Your task to perform on an android device: change the upload size in google photos Image 0: 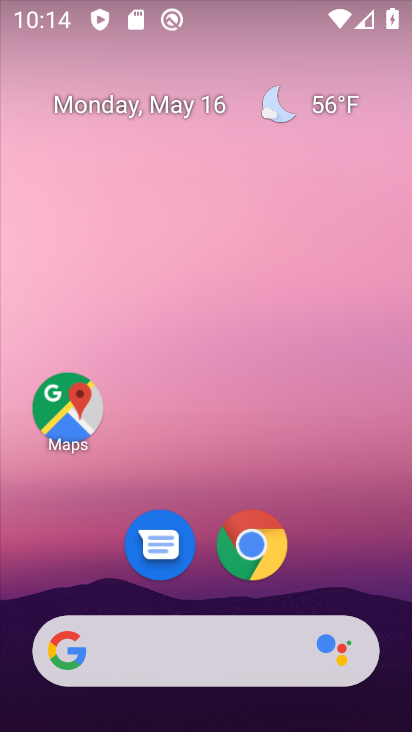
Step 0: drag from (205, 615) to (195, 75)
Your task to perform on an android device: change the upload size in google photos Image 1: 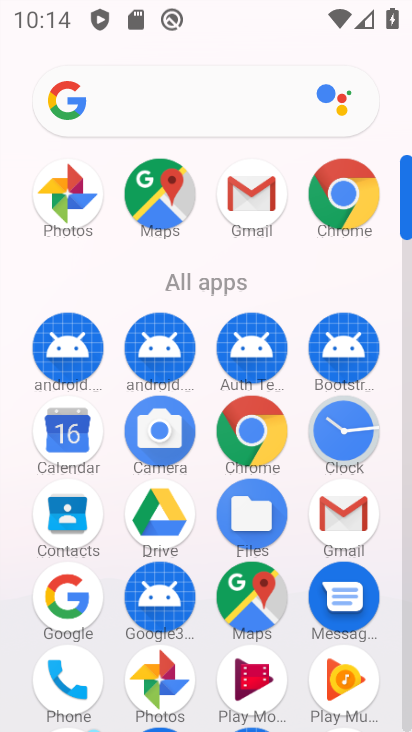
Step 1: click (169, 665)
Your task to perform on an android device: change the upload size in google photos Image 2: 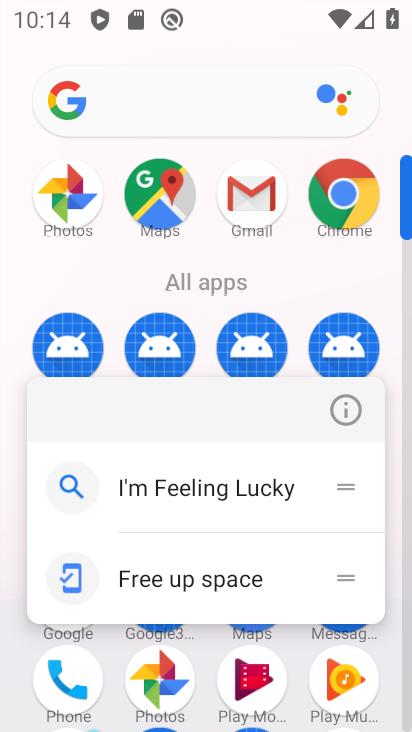
Step 2: click (158, 682)
Your task to perform on an android device: change the upload size in google photos Image 3: 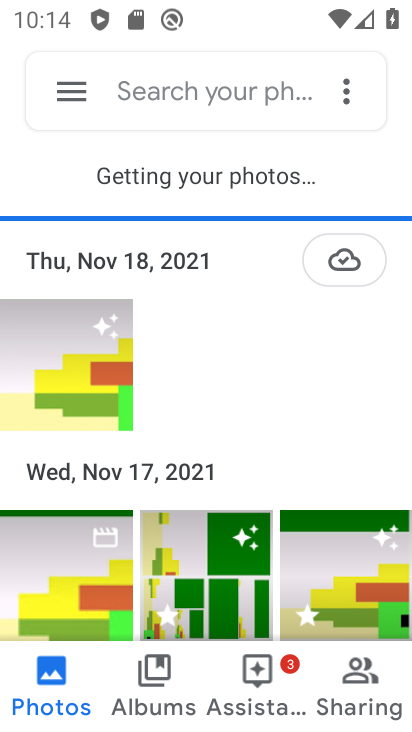
Step 3: click (57, 101)
Your task to perform on an android device: change the upload size in google photos Image 4: 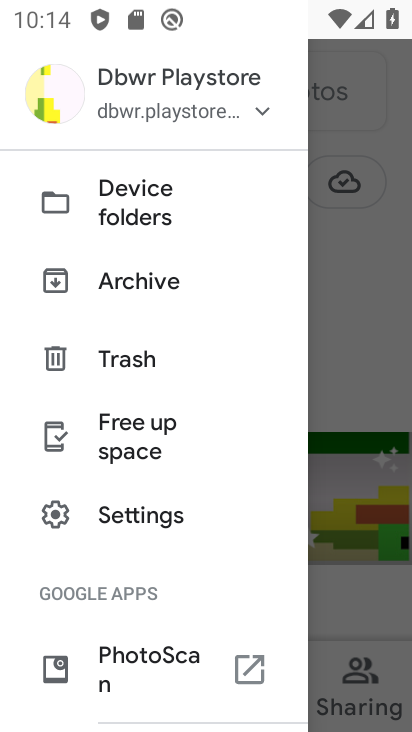
Step 4: drag from (104, 609) to (80, 415)
Your task to perform on an android device: change the upload size in google photos Image 5: 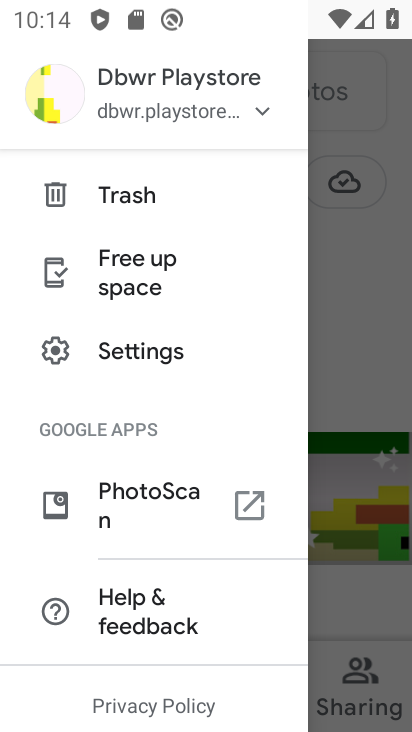
Step 5: click (103, 354)
Your task to perform on an android device: change the upload size in google photos Image 6: 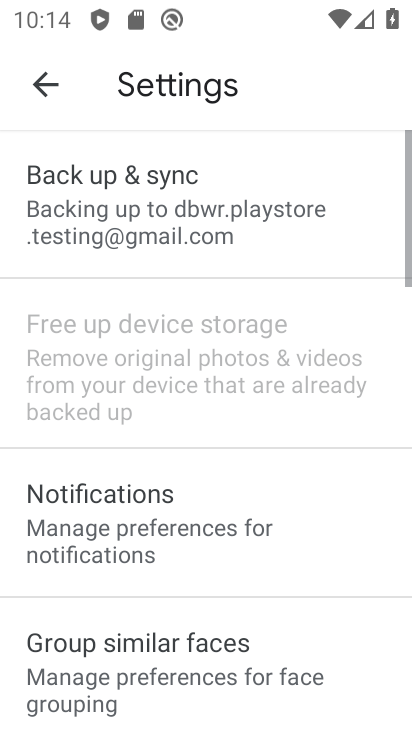
Step 6: click (146, 207)
Your task to perform on an android device: change the upload size in google photos Image 7: 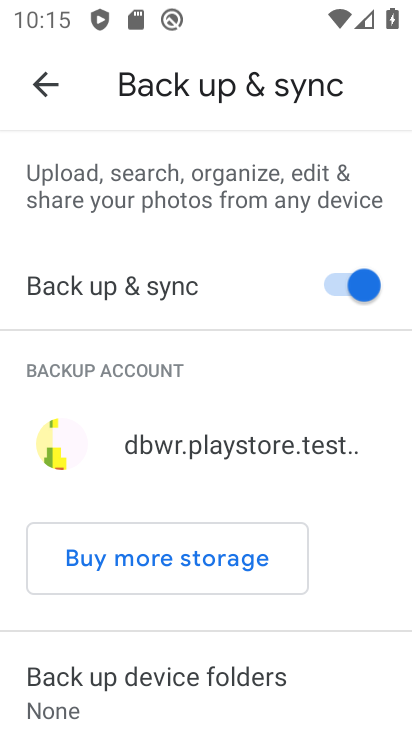
Step 7: drag from (225, 516) to (197, 178)
Your task to perform on an android device: change the upload size in google photos Image 8: 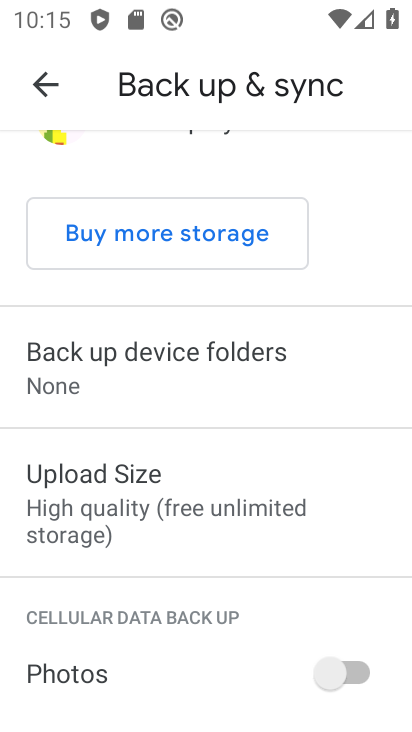
Step 8: click (172, 500)
Your task to perform on an android device: change the upload size in google photos Image 9: 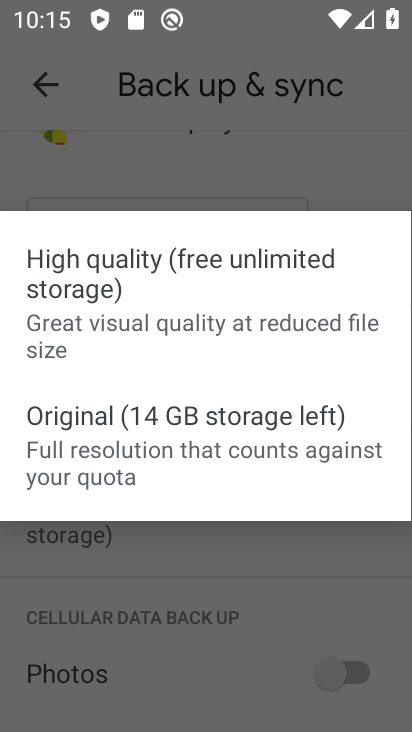
Step 9: click (177, 551)
Your task to perform on an android device: change the upload size in google photos Image 10: 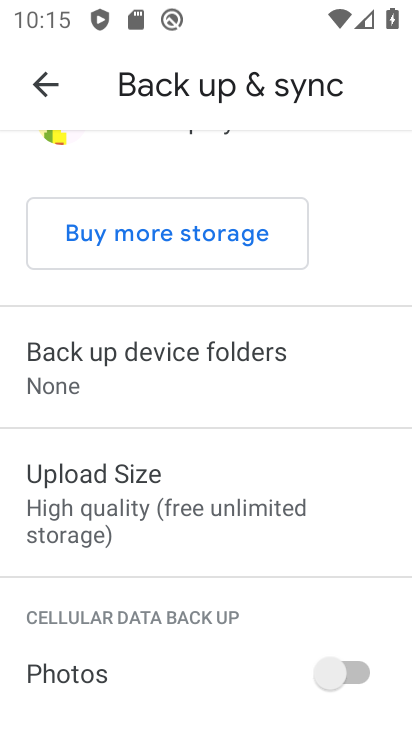
Step 10: click (177, 551)
Your task to perform on an android device: change the upload size in google photos Image 11: 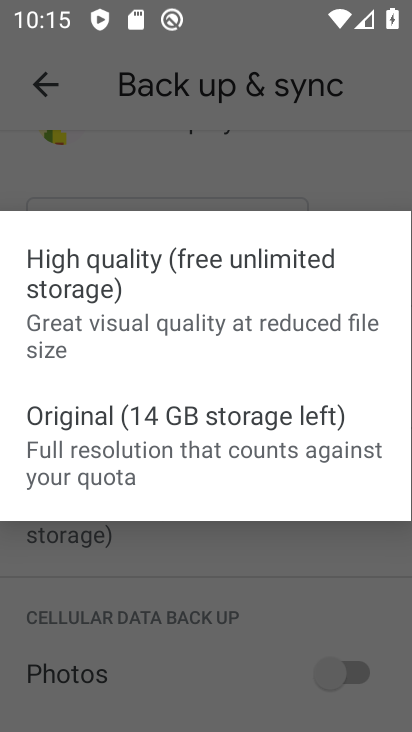
Step 11: click (166, 479)
Your task to perform on an android device: change the upload size in google photos Image 12: 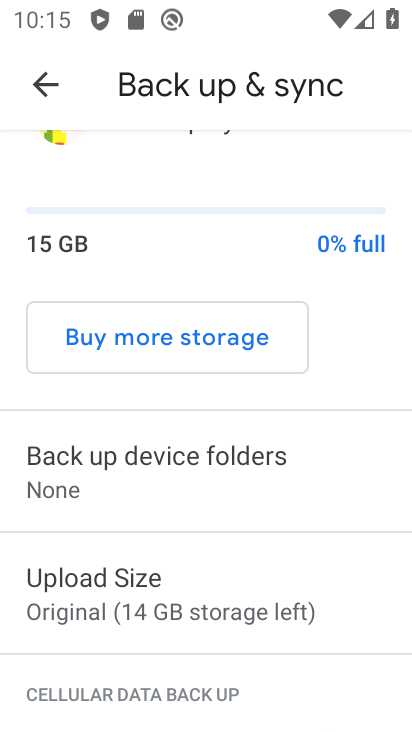
Step 12: task complete